Your task to perform on an android device: Search for Italian restaurants on Maps Image 0: 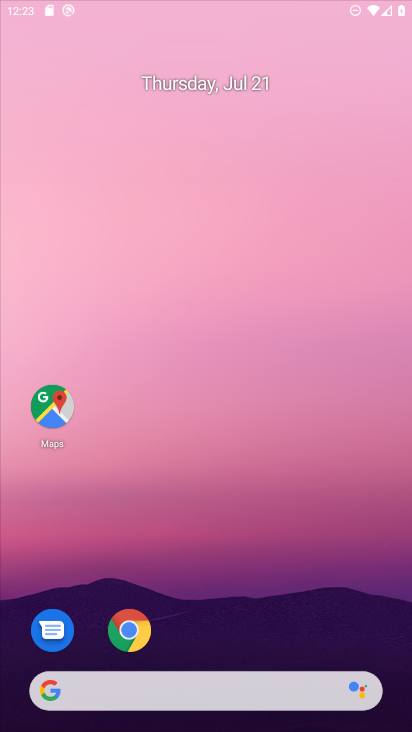
Step 0: drag from (187, 596) to (223, 176)
Your task to perform on an android device: Search for Italian restaurants on Maps Image 1: 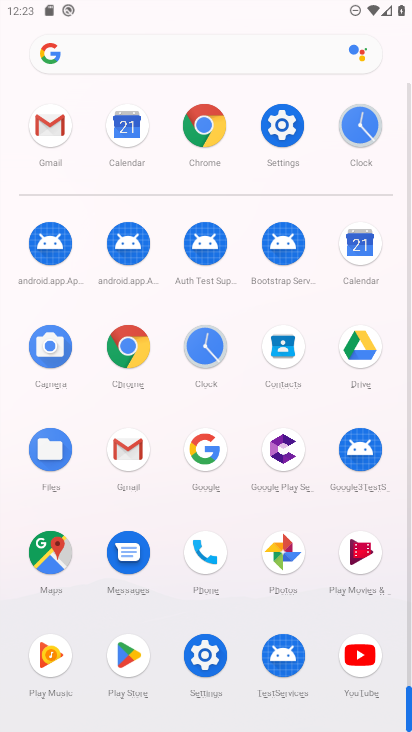
Step 1: click (36, 546)
Your task to perform on an android device: Search for Italian restaurants on Maps Image 2: 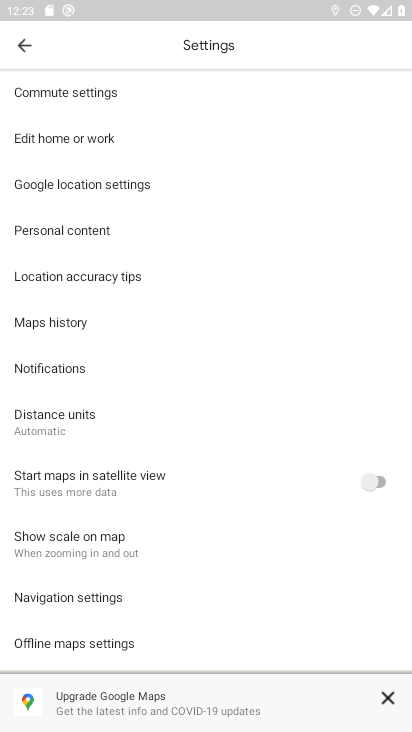
Step 2: click (27, 39)
Your task to perform on an android device: Search for Italian restaurants on Maps Image 3: 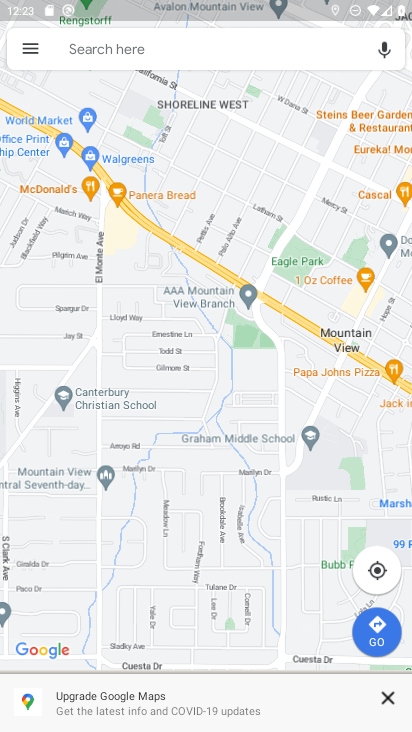
Step 3: drag from (197, 256) to (263, 646)
Your task to perform on an android device: Search for Italian restaurants on Maps Image 4: 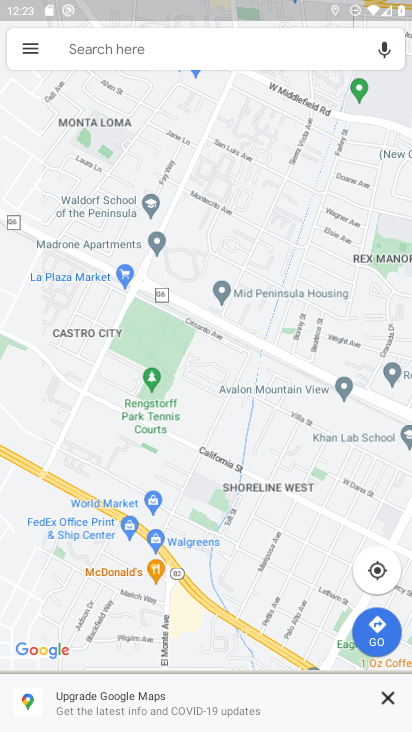
Step 4: click (169, 42)
Your task to perform on an android device: Search for Italian restaurants on Maps Image 5: 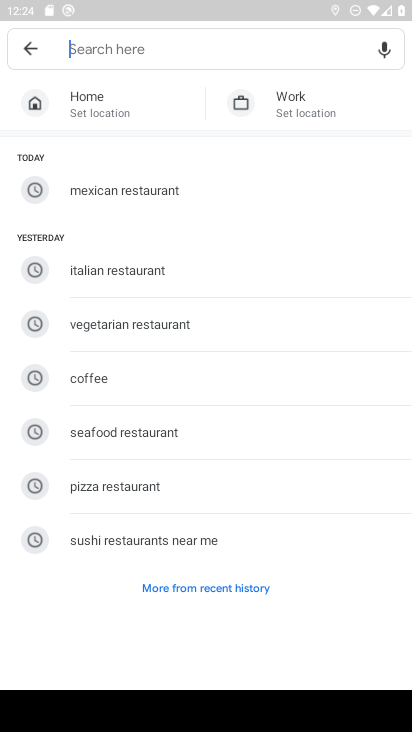
Step 5: click (87, 251)
Your task to perform on an android device: Search for Italian restaurants on Maps Image 6: 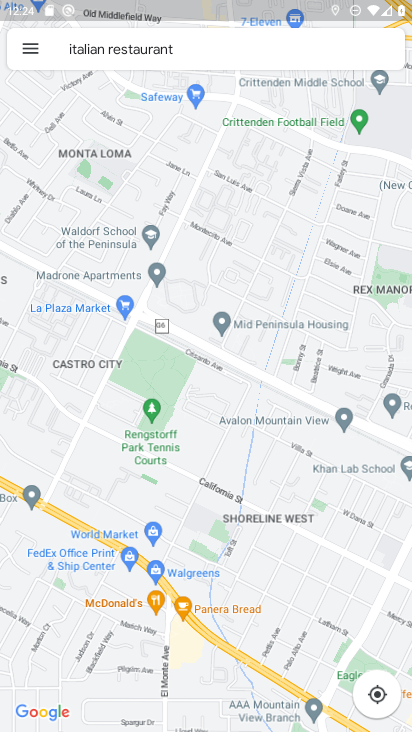
Step 6: task complete